Your task to perform on an android device: change the clock display to analog Image 0: 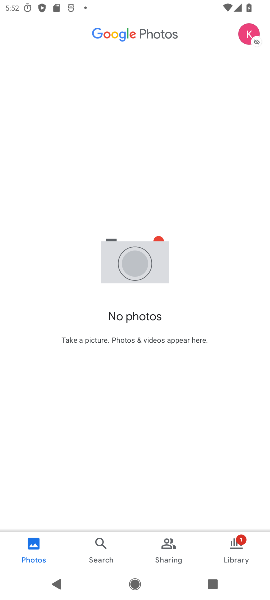
Step 0: press home button
Your task to perform on an android device: change the clock display to analog Image 1: 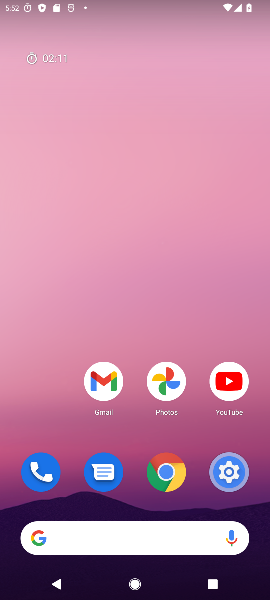
Step 1: drag from (153, 494) to (148, 57)
Your task to perform on an android device: change the clock display to analog Image 2: 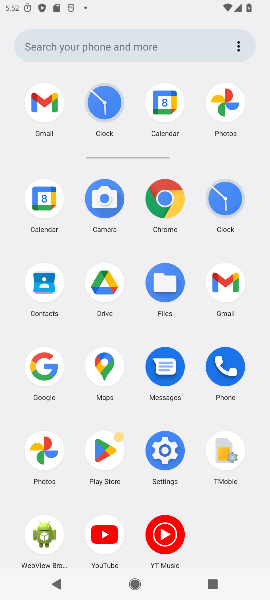
Step 2: click (219, 211)
Your task to perform on an android device: change the clock display to analog Image 3: 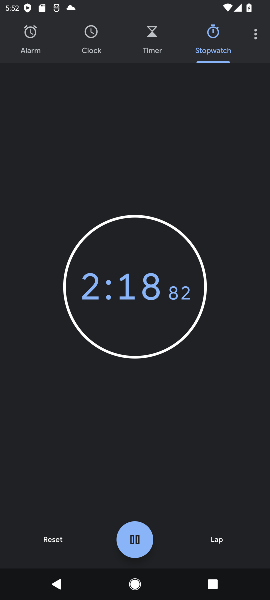
Step 3: click (257, 29)
Your task to perform on an android device: change the clock display to analog Image 4: 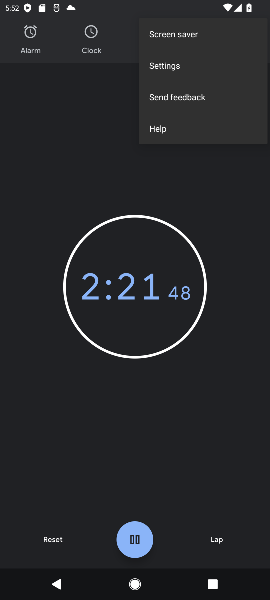
Step 4: click (165, 67)
Your task to perform on an android device: change the clock display to analog Image 5: 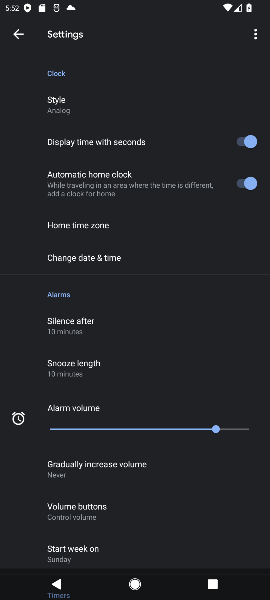
Step 5: click (61, 113)
Your task to perform on an android device: change the clock display to analog Image 6: 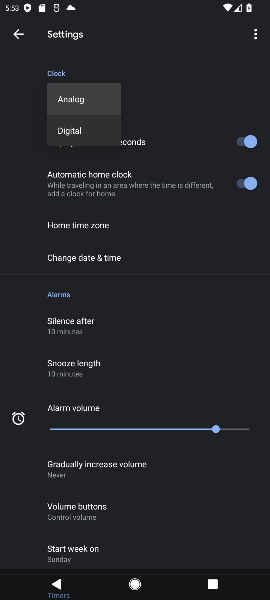
Step 6: task complete